Your task to perform on an android device: turn off improve location accuracy Image 0: 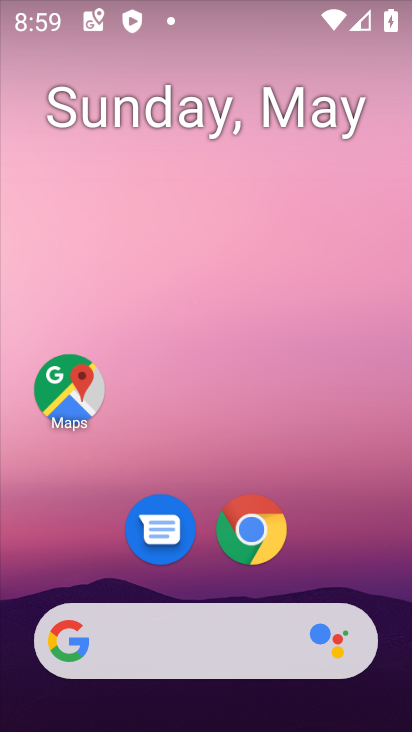
Step 0: drag from (381, 561) to (299, 0)
Your task to perform on an android device: turn off improve location accuracy Image 1: 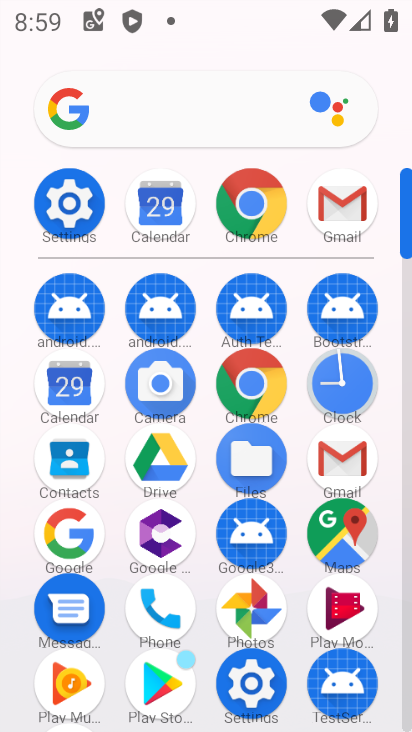
Step 1: click (99, 188)
Your task to perform on an android device: turn off improve location accuracy Image 2: 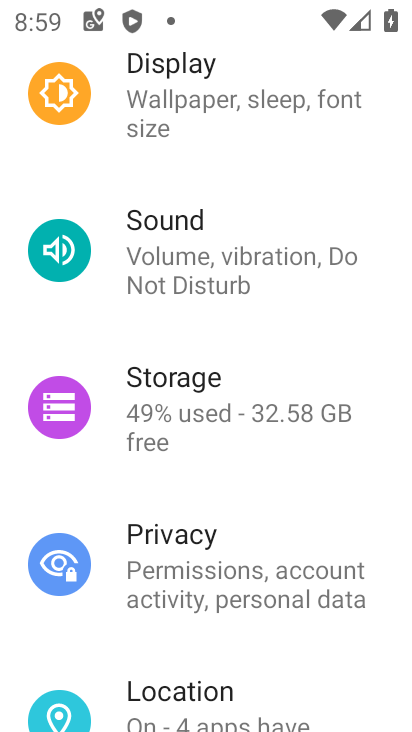
Step 2: drag from (239, 621) to (217, 255)
Your task to perform on an android device: turn off improve location accuracy Image 3: 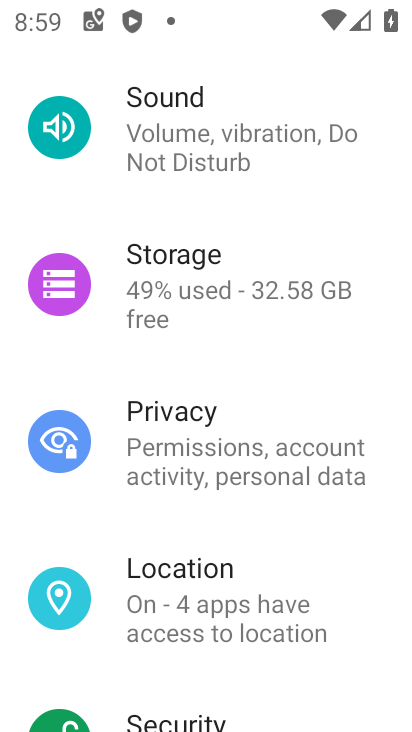
Step 3: click (207, 597)
Your task to perform on an android device: turn off improve location accuracy Image 4: 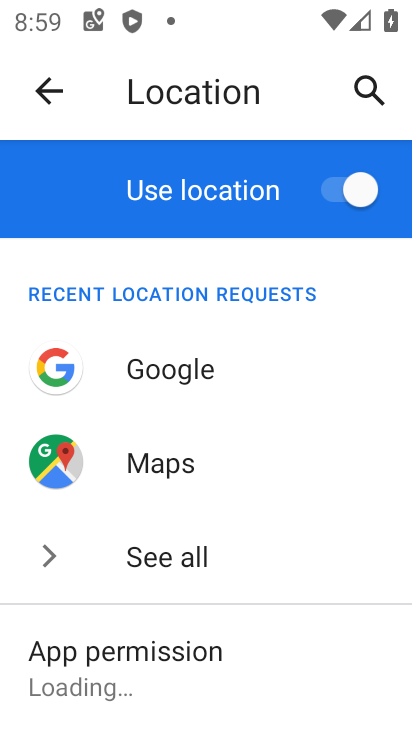
Step 4: drag from (325, 541) to (264, 4)
Your task to perform on an android device: turn off improve location accuracy Image 5: 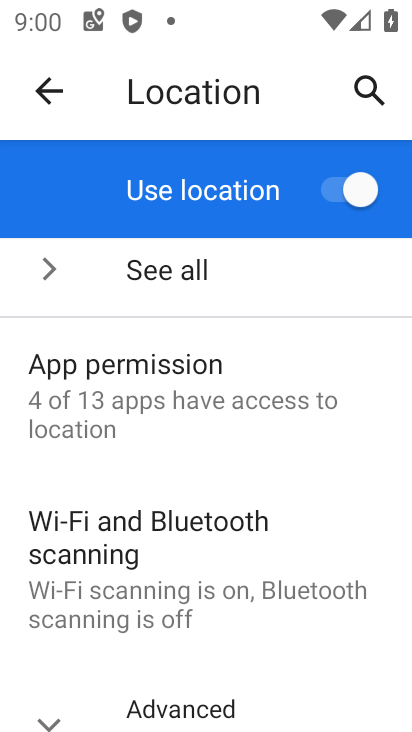
Step 5: click (218, 692)
Your task to perform on an android device: turn off improve location accuracy Image 6: 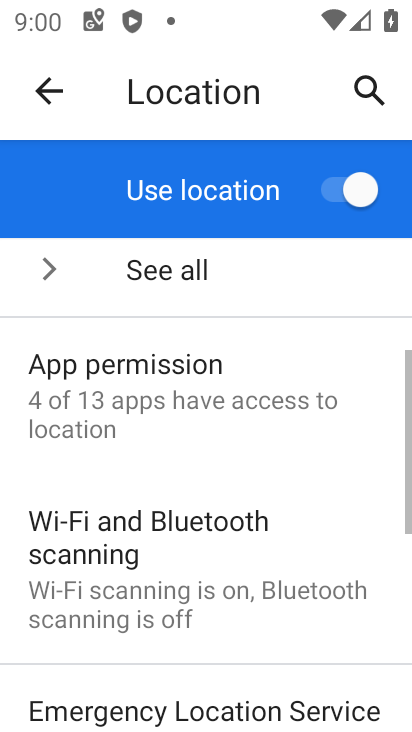
Step 6: drag from (252, 661) to (255, 75)
Your task to perform on an android device: turn off improve location accuracy Image 7: 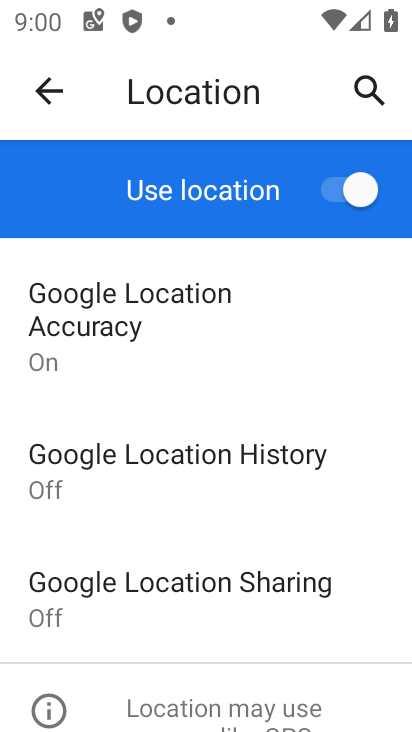
Step 7: drag from (270, 667) to (251, 398)
Your task to perform on an android device: turn off improve location accuracy Image 8: 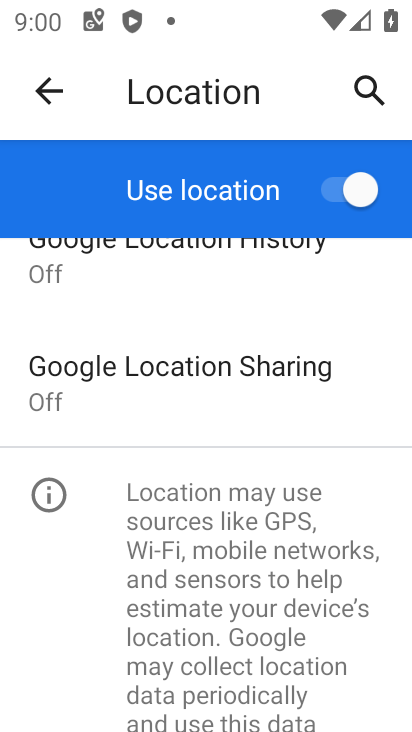
Step 8: drag from (247, 395) to (298, 697)
Your task to perform on an android device: turn off improve location accuracy Image 9: 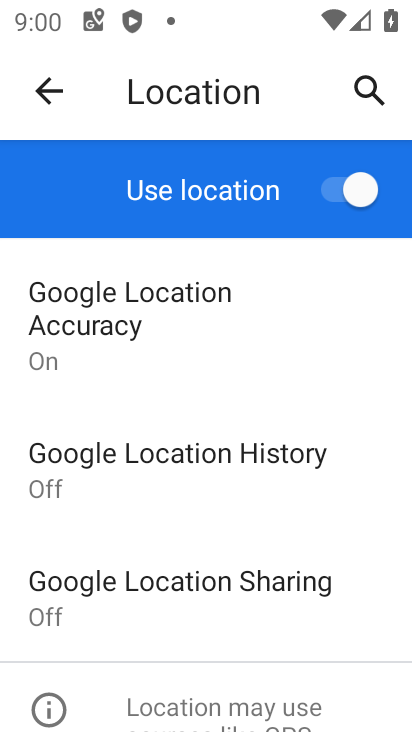
Step 9: click (160, 364)
Your task to perform on an android device: turn off improve location accuracy Image 10: 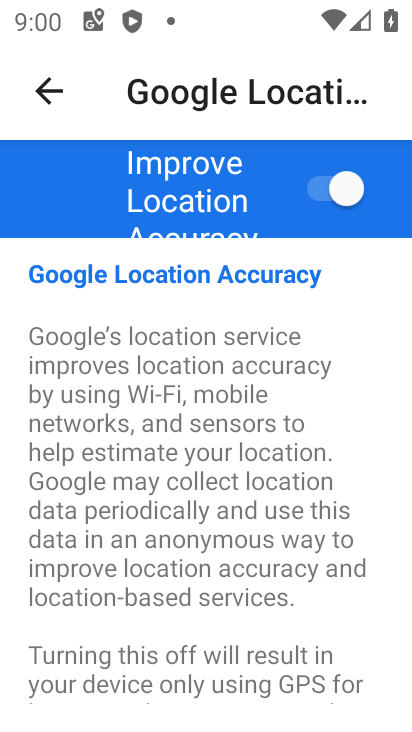
Step 10: click (345, 209)
Your task to perform on an android device: turn off improve location accuracy Image 11: 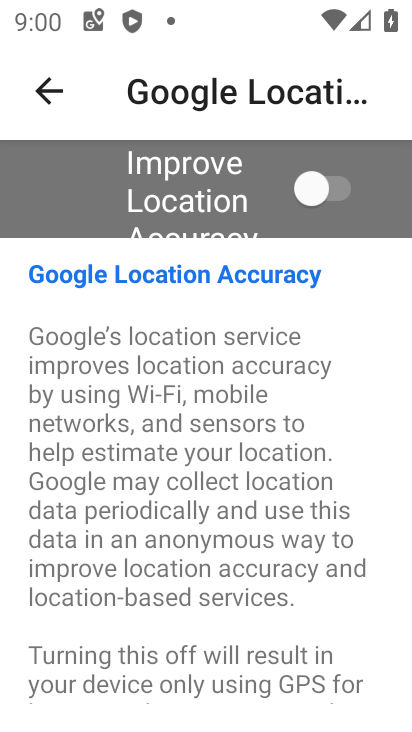
Step 11: task complete